Your task to perform on an android device: Go to settings Image 0: 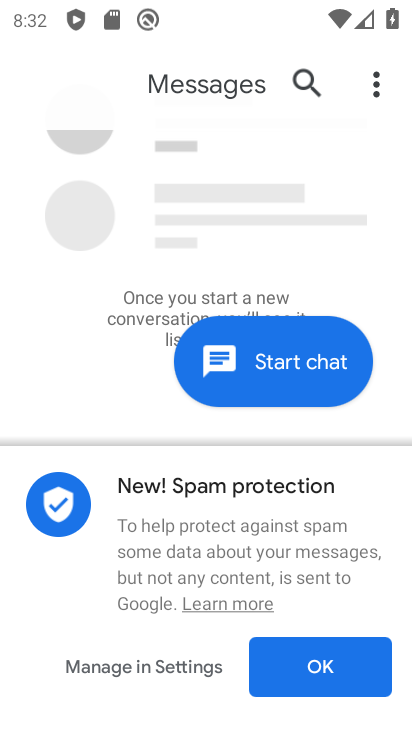
Step 0: press home button
Your task to perform on an android device: Go to settings Image 1: 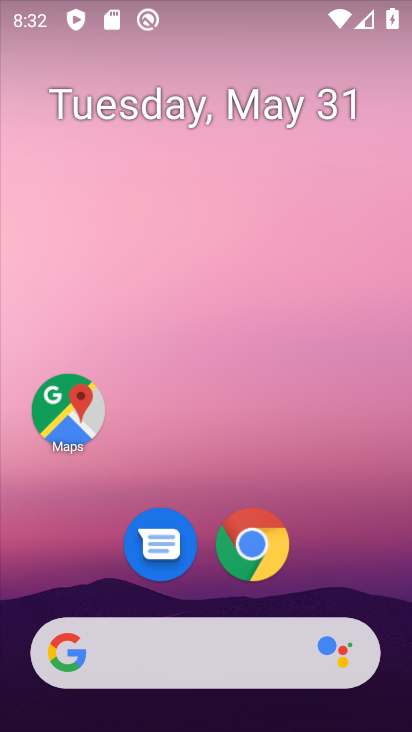
Step 1: drag from (337, 376) to (339, 21)
Your task to perform on an android device: Go to settings Image 2: 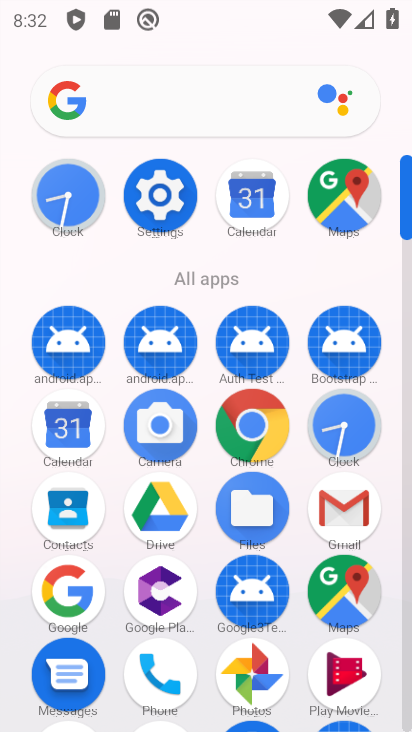
Step 2: click (165, 193)
Your task to perform on an android device: Go to settings Image 3: 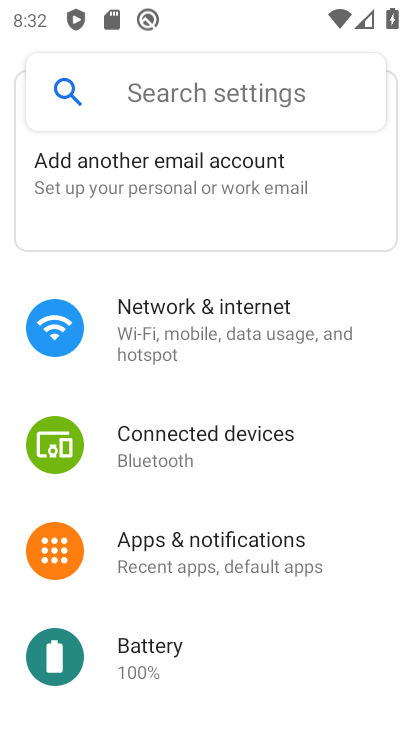
Step 3: task complete